Your task to perform on an android device: What's the news in Laos? Image 0: 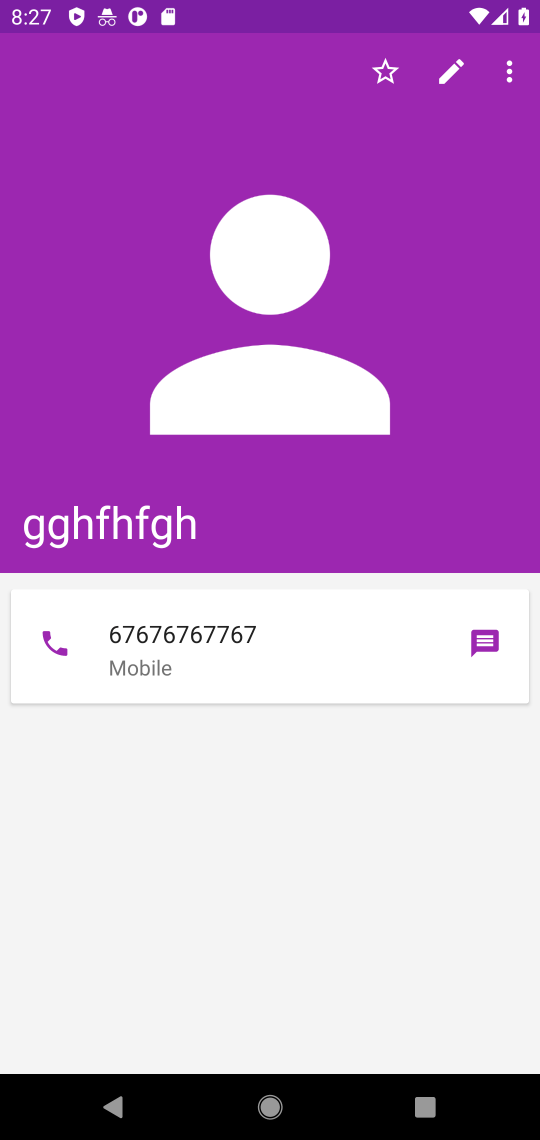
Step 0: press home button
Your task to perform on an android device: What's the news in Laos? Image 1: 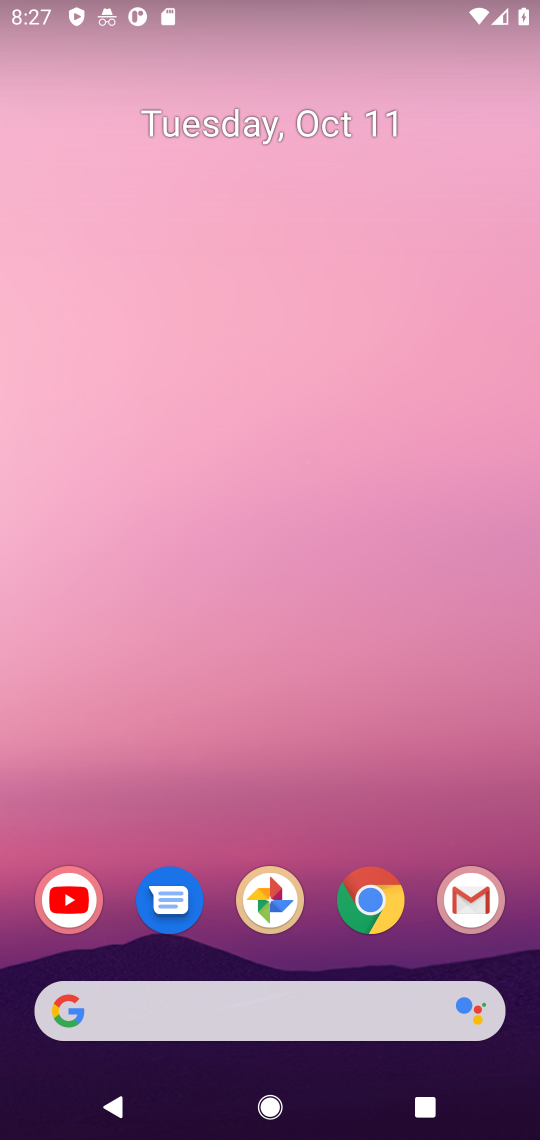
Step 1: click (349, 900)
Your task to perform on an android device: What's the news in Laos? Image 2: 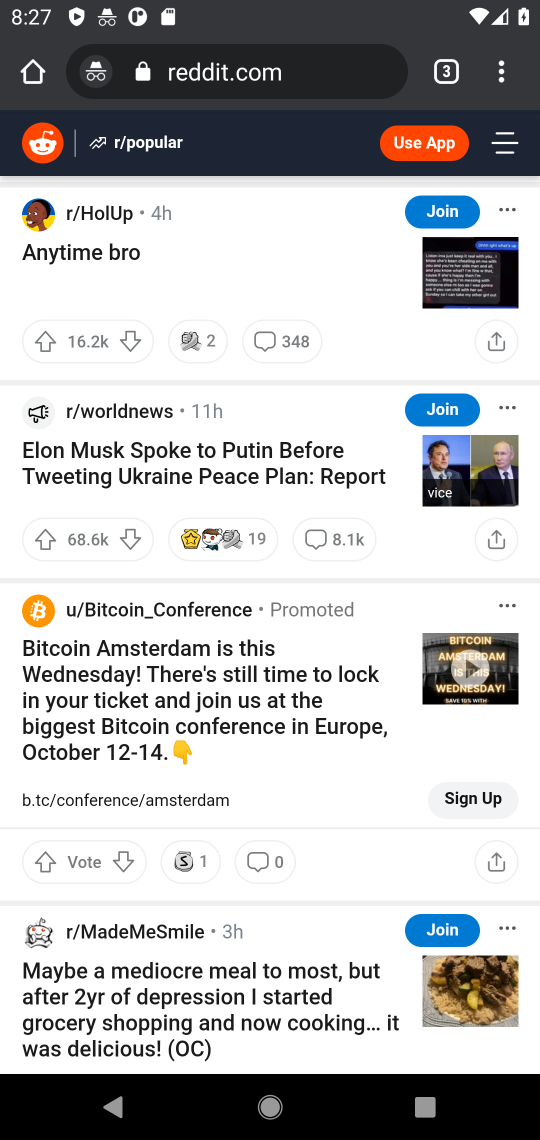
Step 2: click (258, 82)
Your task to perform on an android device: What's the news in Laos? Image 3: 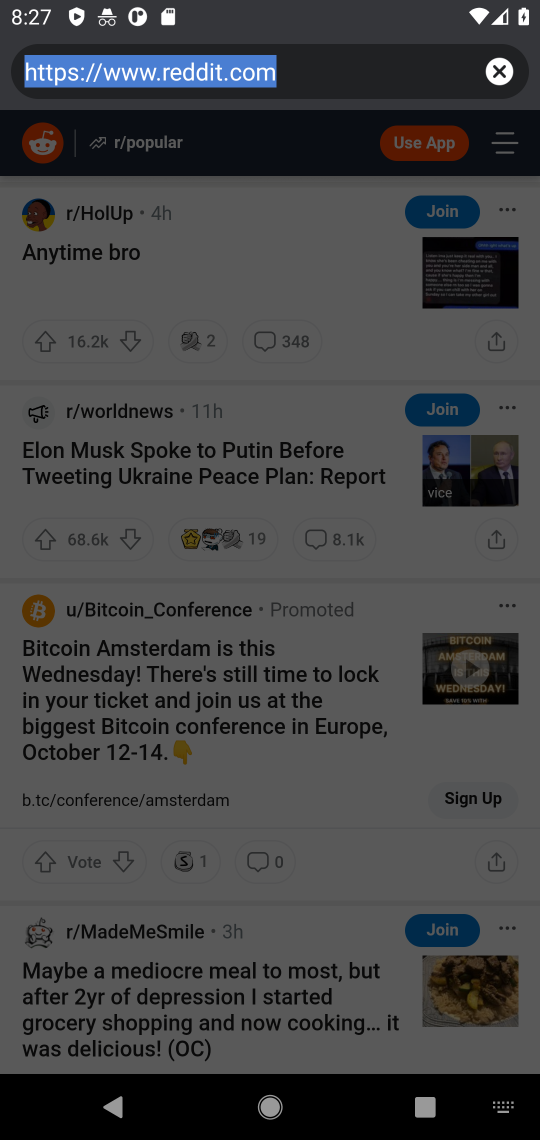
Step 3: type "news in Laos"
Your task to perform on an android device: What's the news in Laos? Image 4: 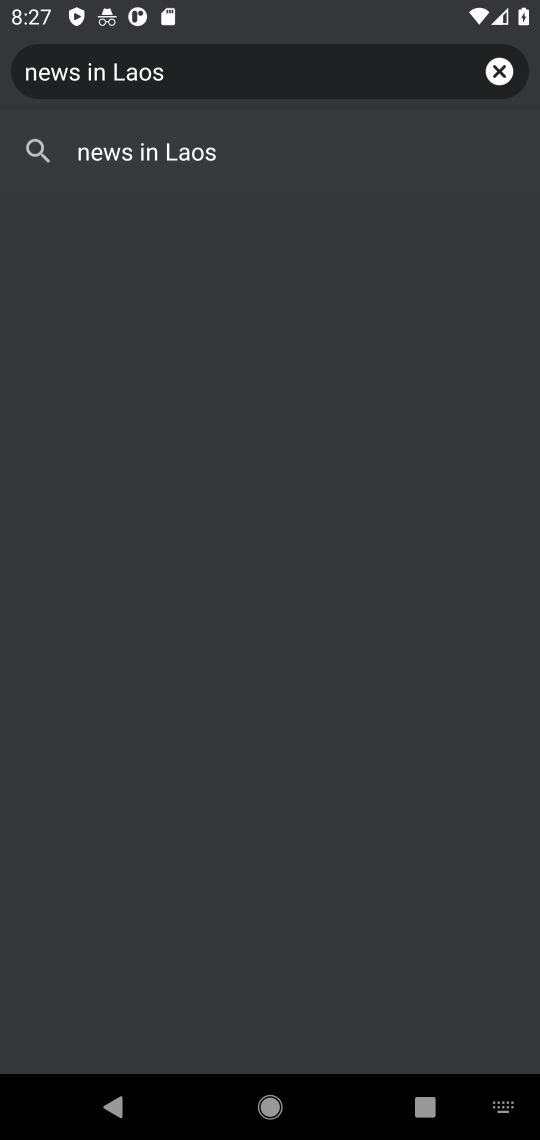
Step 4: click (406, 125)
Your task to perform on an android device: What's the news in Laos? Image 5: 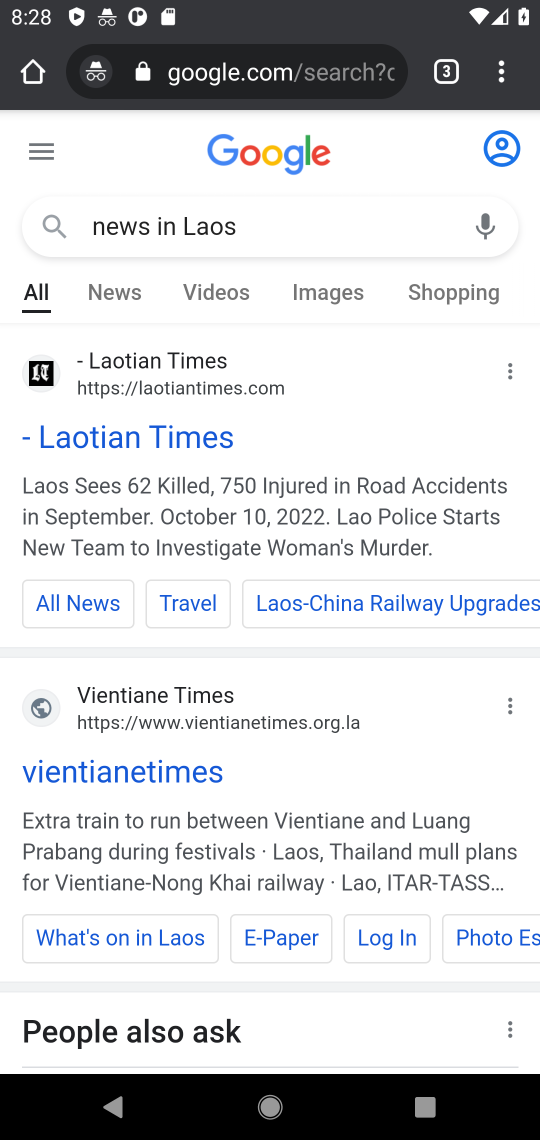
Step 5: drag from (333, 780) to (321, 384)
Your task to perform on an android device: What's the news in Laos? Image 6: 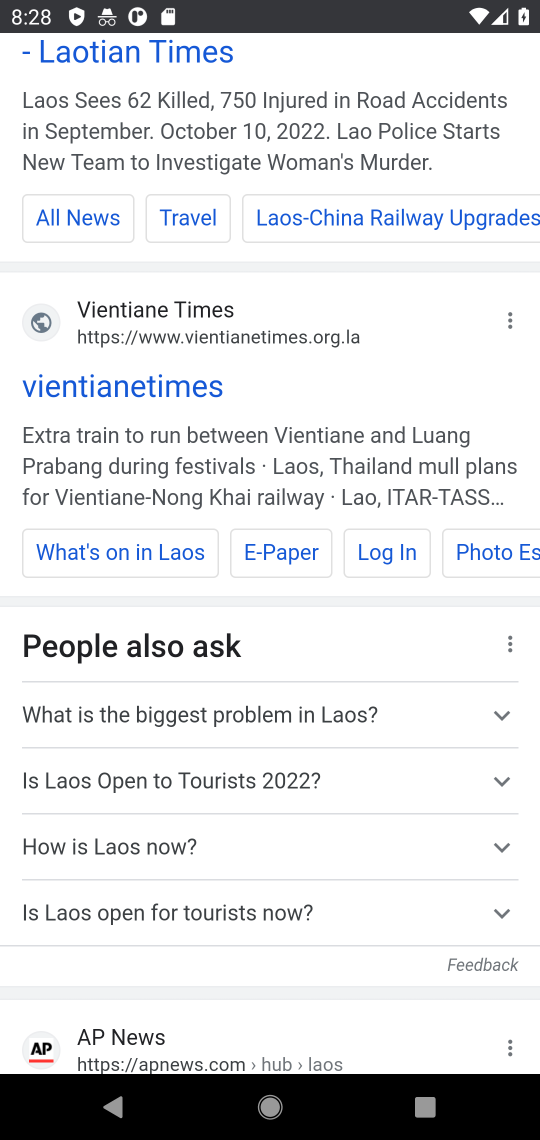
Step 6: drag from (222, 268) to (297, 881)
Your task to perform on an android device: What's the news in Laos? Image 7: 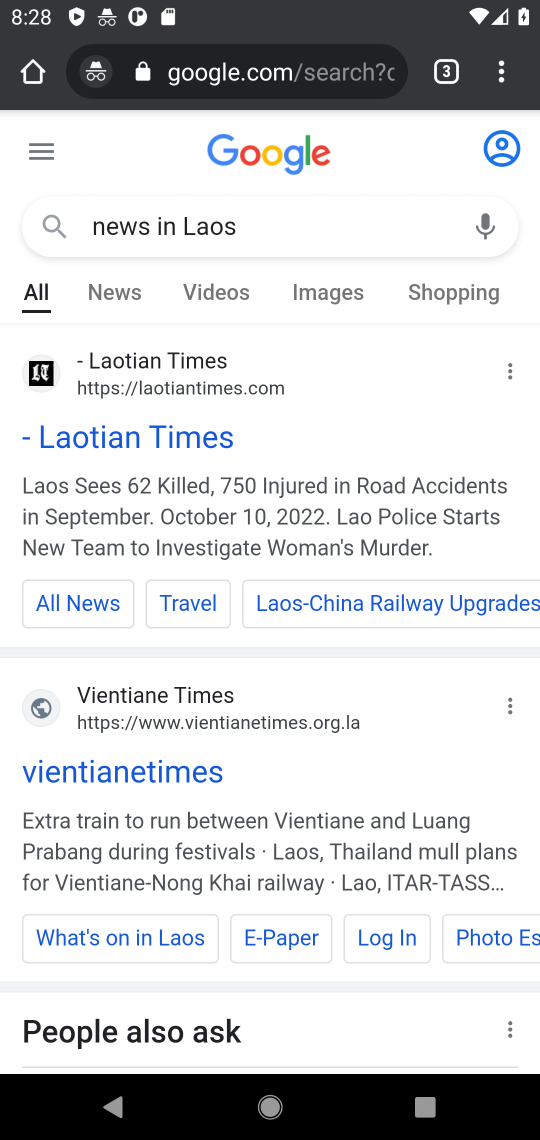
Step 7: click (131, 301)
Your task to perform on an android device: What's the news in Laos? Image 8: 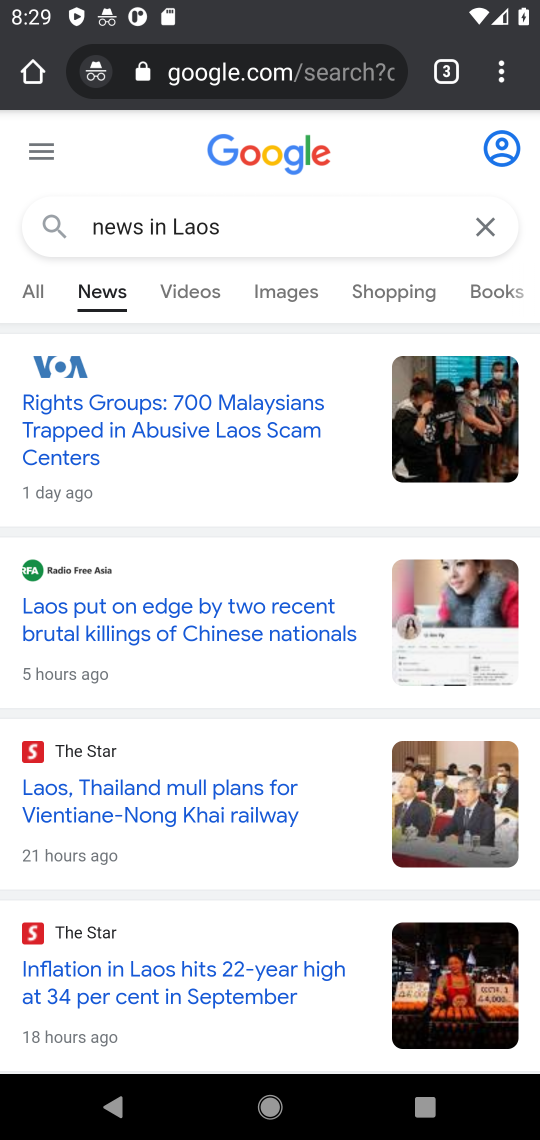
Step 8: task complete